Your task to perform on an android device: turn off wifi Image 0: 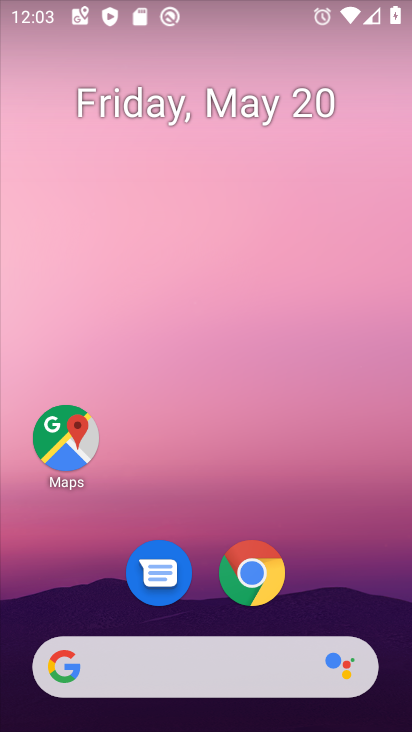
Step 0: drag from (204, 597) to (235, 243)
Your task to perform on an android device: turn off wifi Image 1: 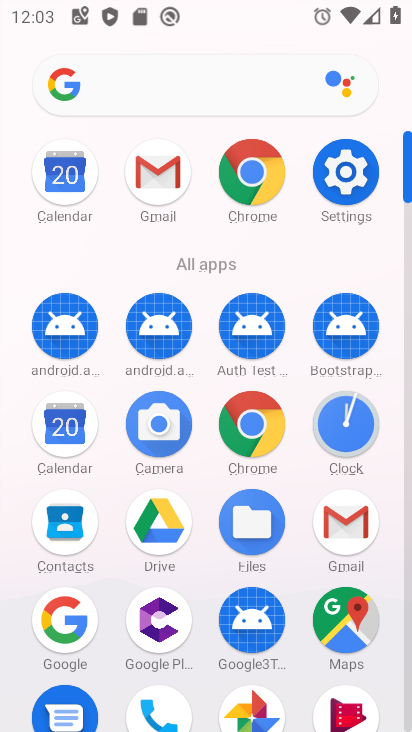
Step 1: click (350, 183)
Your task to perform on an android device: turn off wifi Image 2: 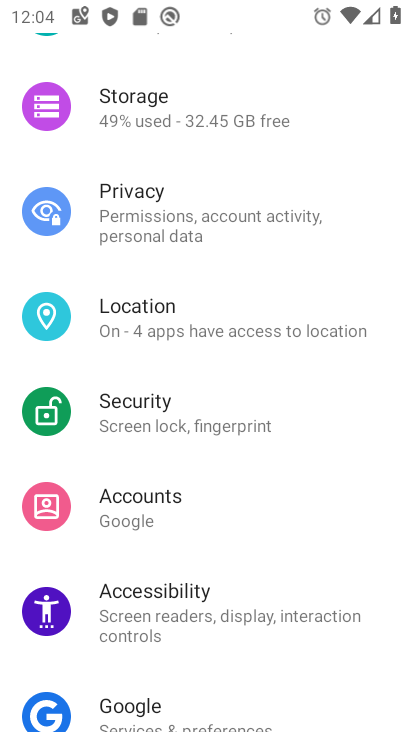
Step 2: drag from (277, 187) to (277, 374)
Your task to perform on an android device: turn off wifi Image 3: 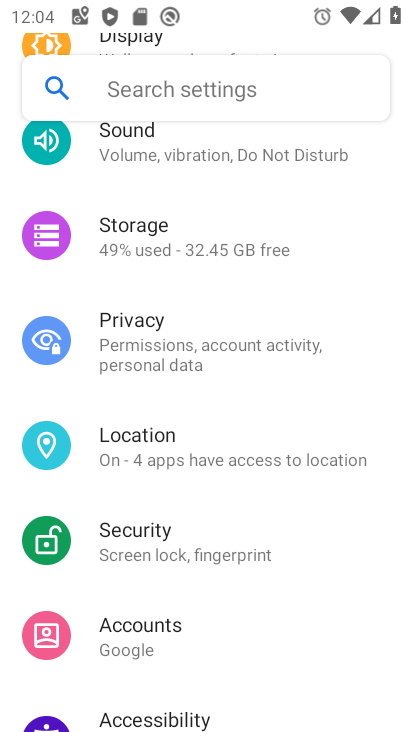
Step 3: drag from (190, 202) to (180, 439)
Your task to perform on an android device: turn off wifi Image 4: 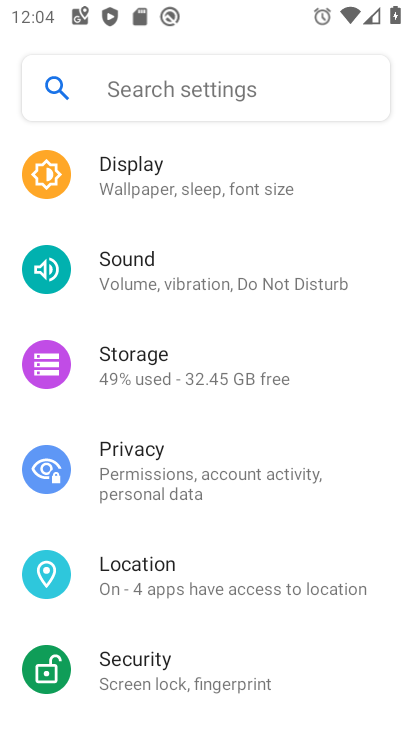
Step 4: drag from (166, 198) to (168, 405)
Your task to perform on an android device: turn off wifi Image 5: 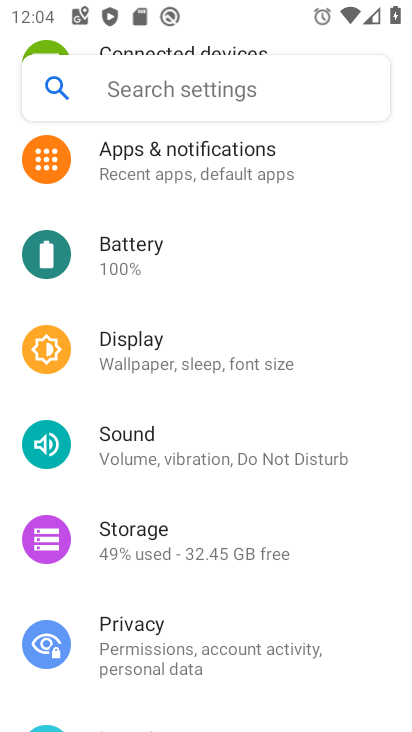
Step 5: drag from (178, 290) to (193, 608)
Your task to perform on an android device: turn off wifi Image 6: 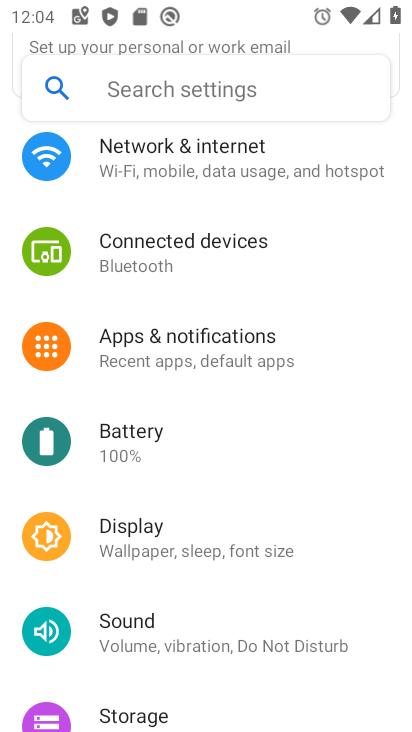
Step 6: drag from (206, 250) to (197, 476)
Your task to perform on an android device: turn off wifi Image 7: 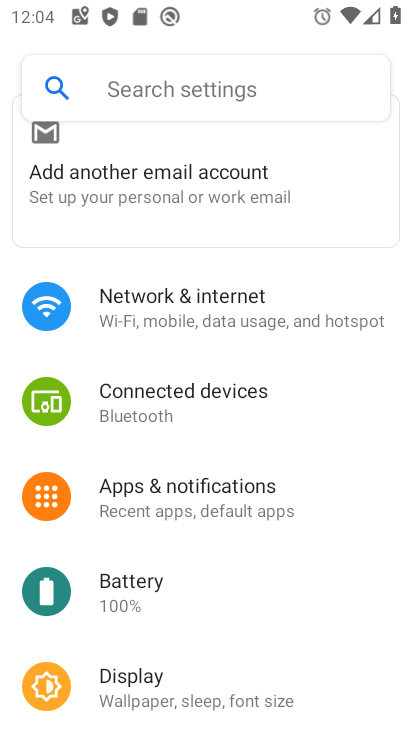
Step 7: click (219, 311)
Your task to perform on an android device: turn off wifi Image 8: 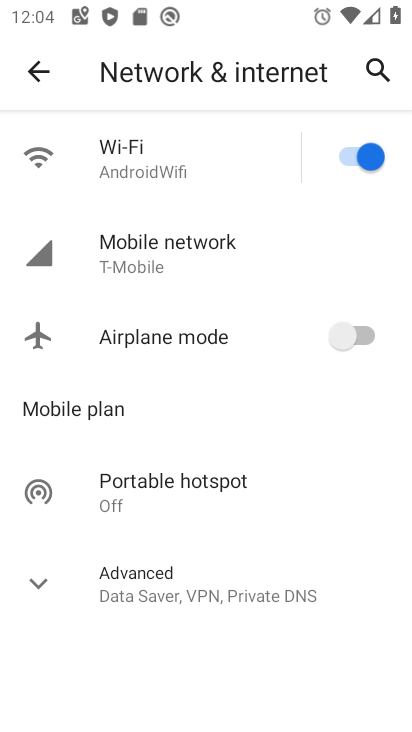
Step 8: click (338, 155)
Your task to perform on an android device: turn off wifi Image 9: 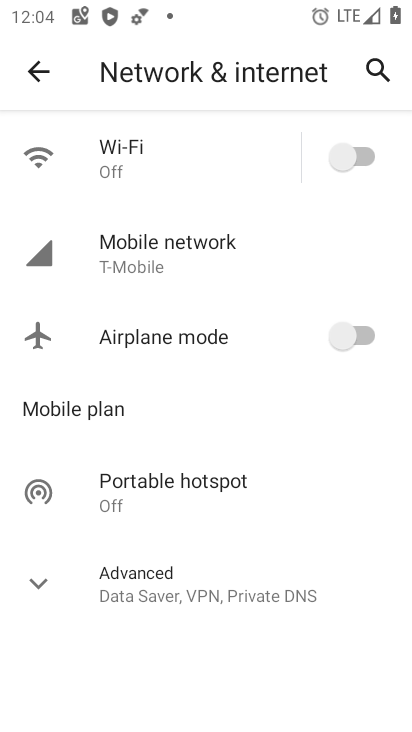
Step 9: task complete